Your task to perform on an android device: Do I have any events today? Image 0: 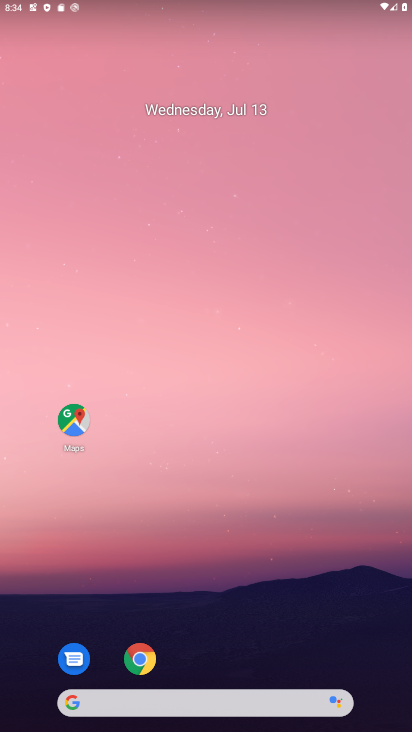
Step 0: drag from (230, 662) to (220, 206)
Your task to perform on an android device: Do I have any events today? Image 1: 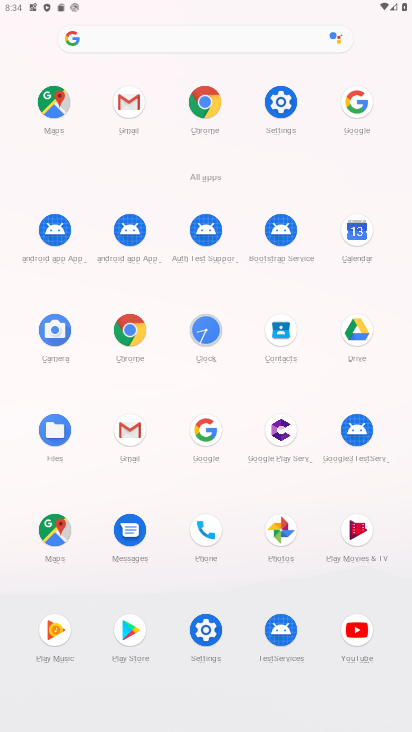
Step 1: click (354, 232)
Your task to perform on an android device: Do I have any events today? Image 2: 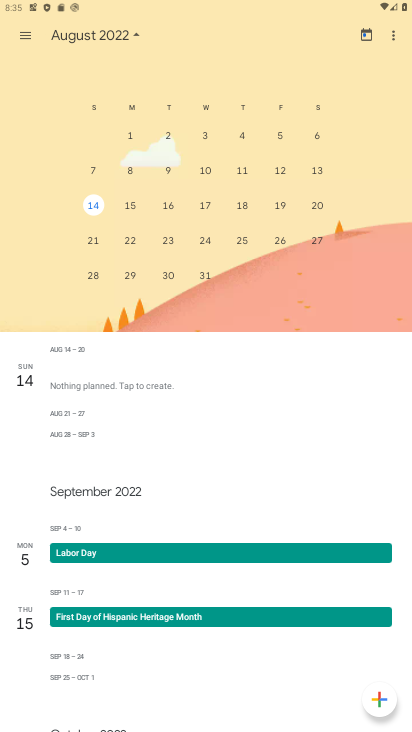
Step 2: drag from (87, 187) to (374, 172)
Your task to perform on an android device: Do I have any events today? Image 3: 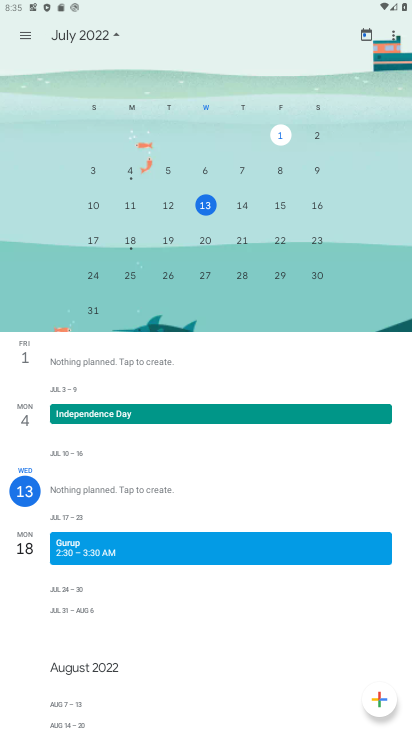
Step 3: click (211, 211)
Your task to perform on an android device: Do I have any events today? Image 4: 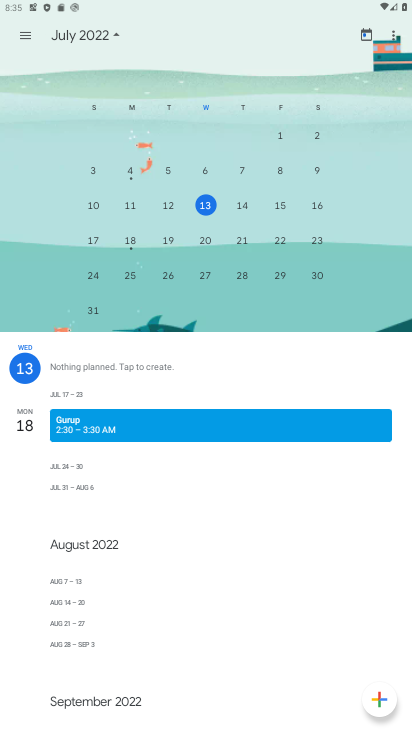
Step 4: task complete